Your task to perform on an android device: Look up the best rated book on Goodreads Image 0: 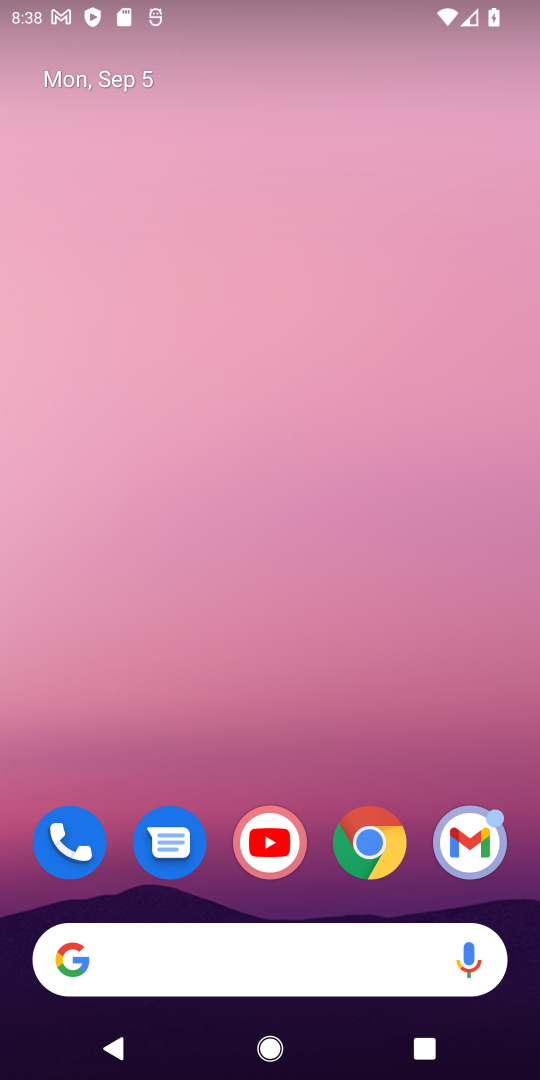
Step 0: drag from (443, 2) to (502, 18)
Your task to perform on an android device: Look up the best rated book on Goodreads Image 1: 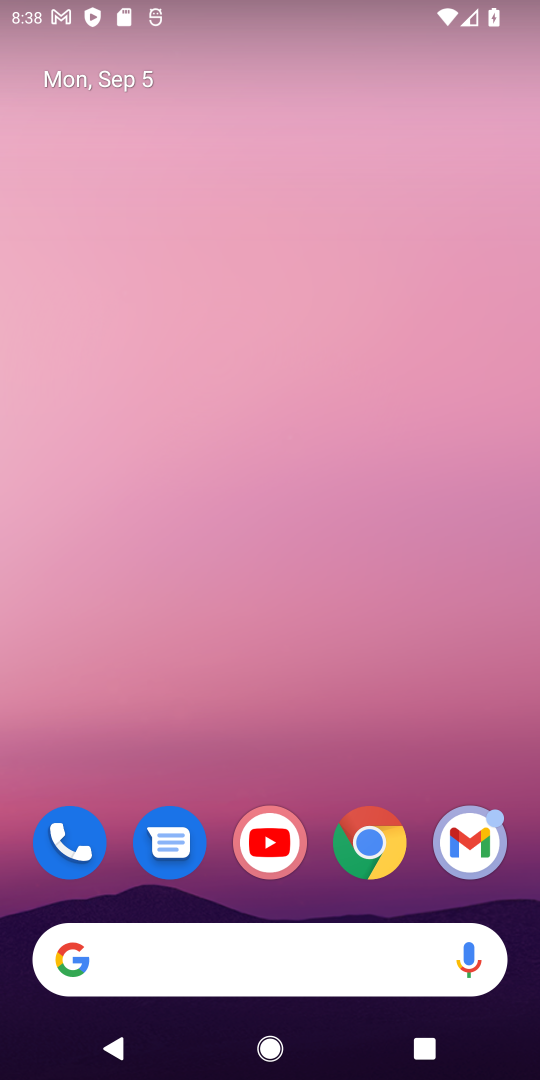
Step 1: drag from (415, 199) to (437, 0)
Your task to perform on an android device: Look up the best rated book on Goodreads Image 2: 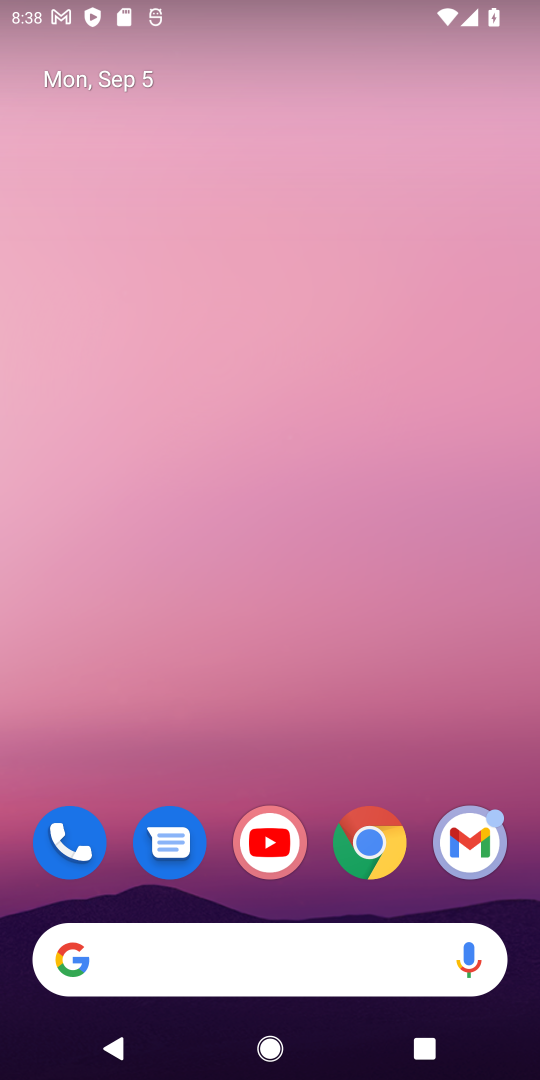
Step 2: drag from (325, 902) to (406, 116)
Your task to perform on an android device: Look up the best rated book on Goodreads Image 3: 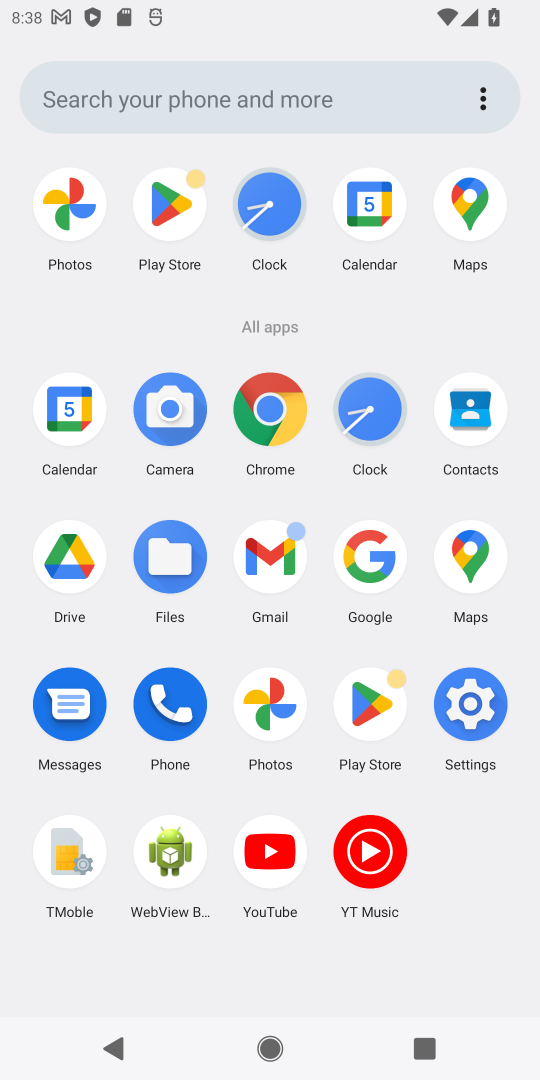
Step 3: click (278, 402)
Your task to perform on an android device: Look up the best rated book on Goodreads Image 4: 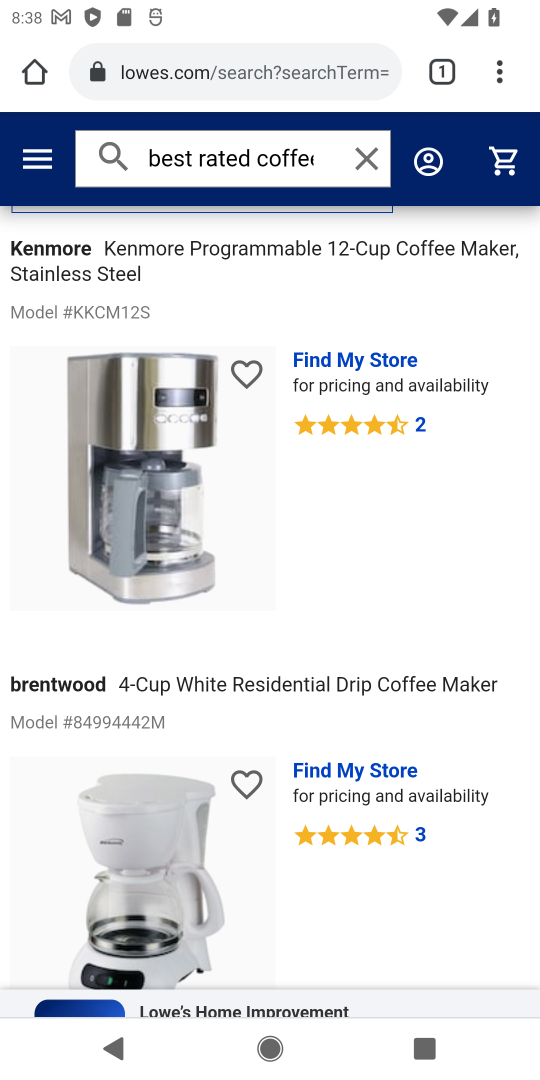
Step 4: click (243, 67)
Your task to perform on an android device: Look up the best rated book on Goodreads Image 5: 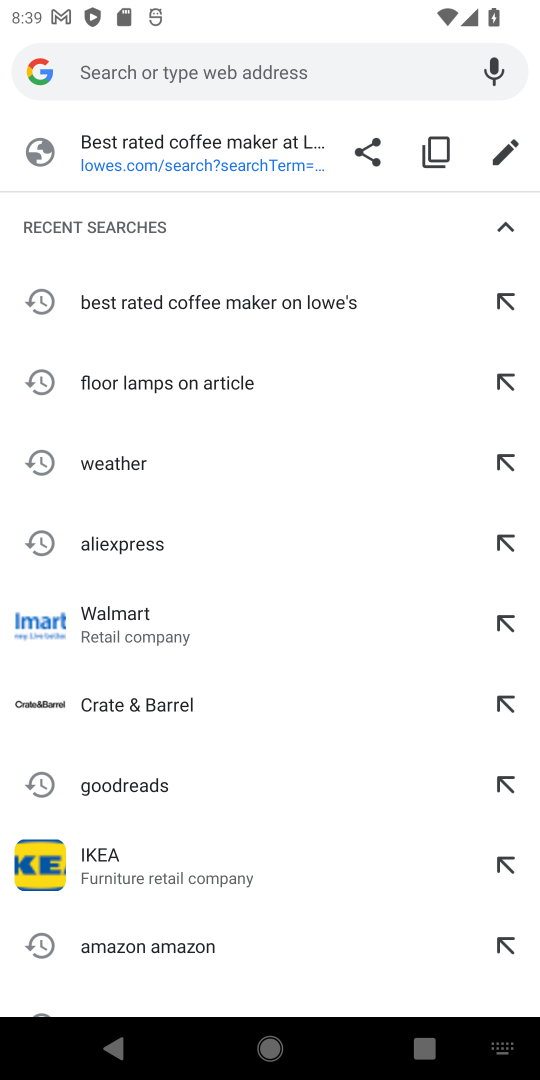
Step 5: type "goodreads"
Your task to perform on an android device: Look up the best rated book on Goodreads Image 6: 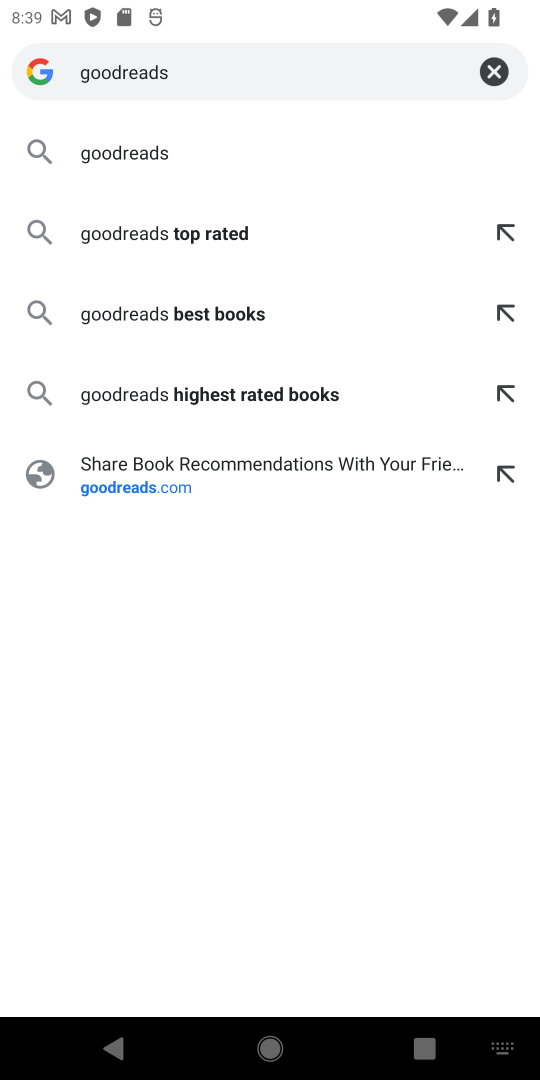
Step 6: press enter
Your task to perform on an android device: Look up the best rated book on Goodreads Image 7: 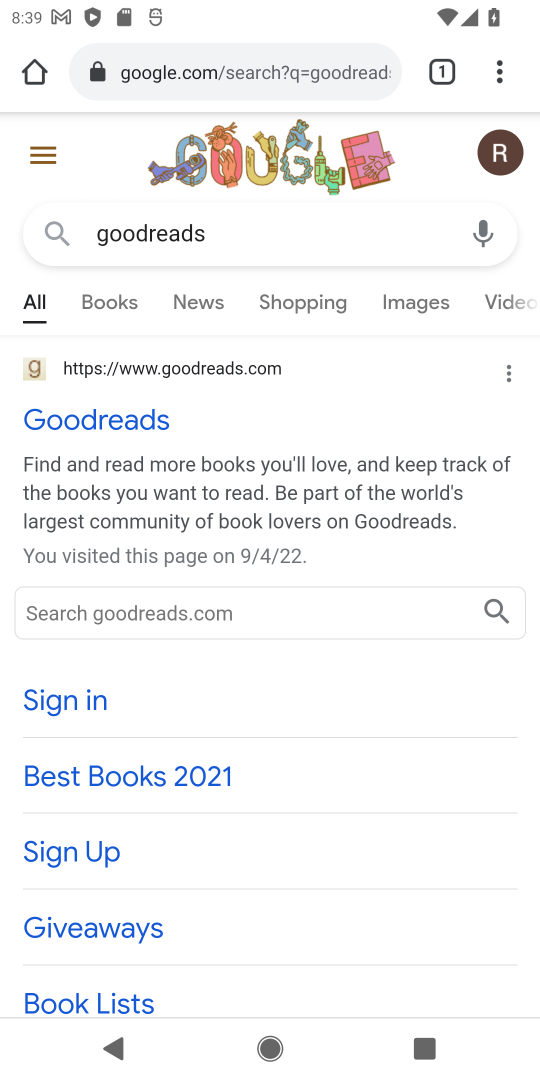
Step 7: click (78, 432)
Your task to perform on an android device: Look up the best rated book on Goodreads Image 8: 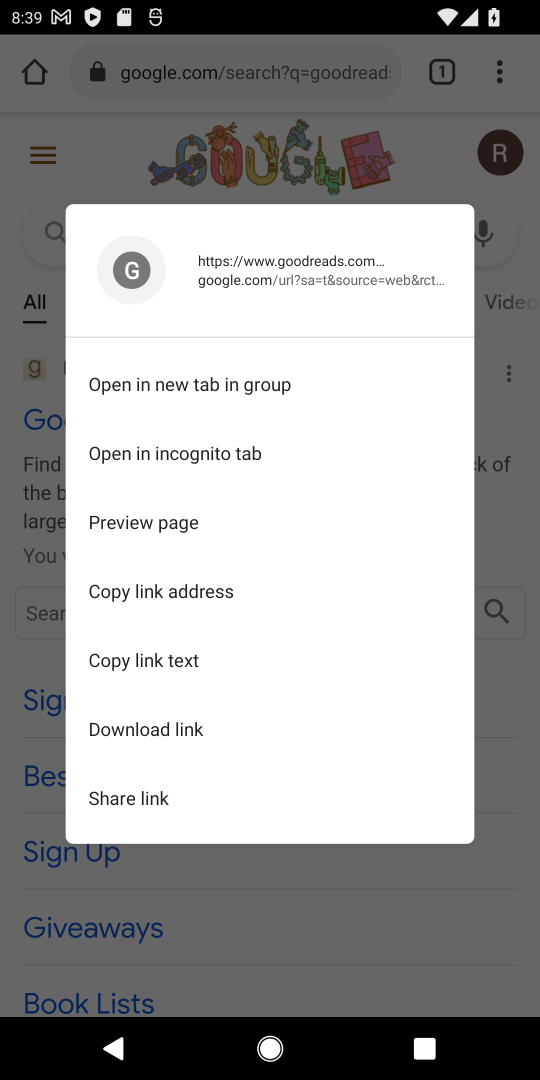
Step 8: click (55, 157)
Your task to perform on an android device: Look up the best rated book on Goodreads Image 9: 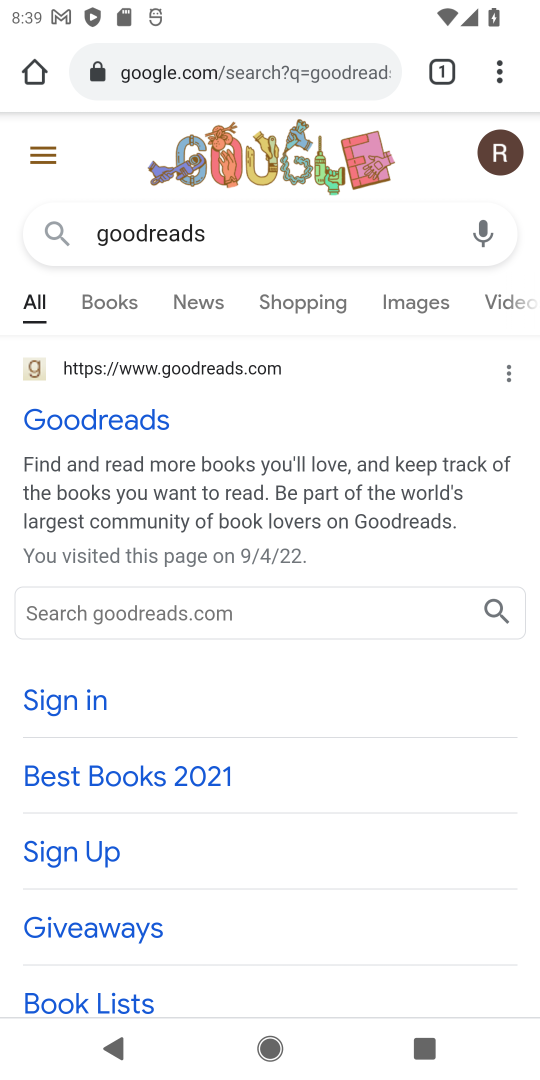
Step 9: click (148, 411)
Your task to perform on an android device: Look up the best rated book on Goodreads Image 10: 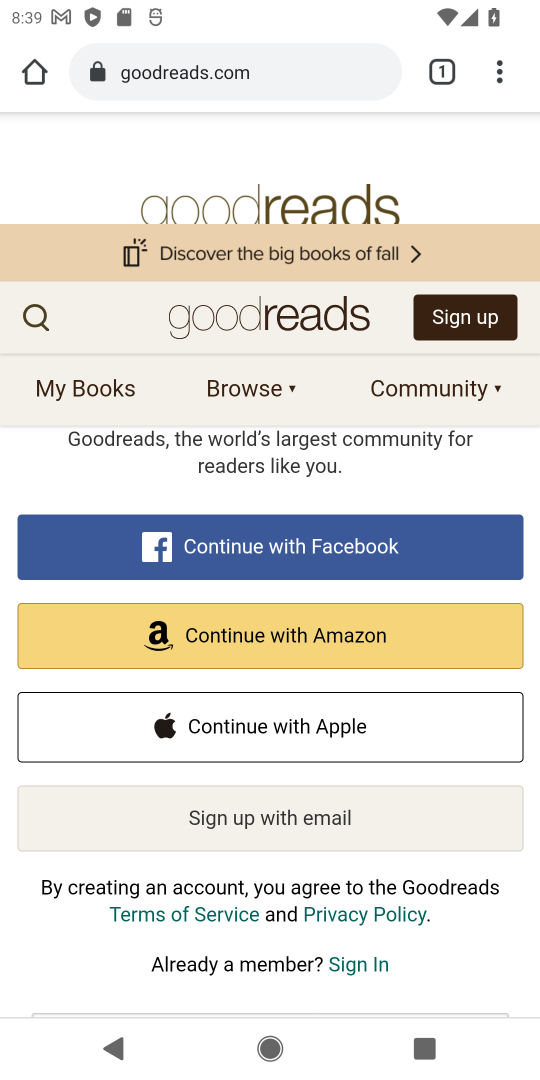
Step 10: click (282, 82)
Your task to perform on an android device: Look up the best rated book on Goodreads Image 11: 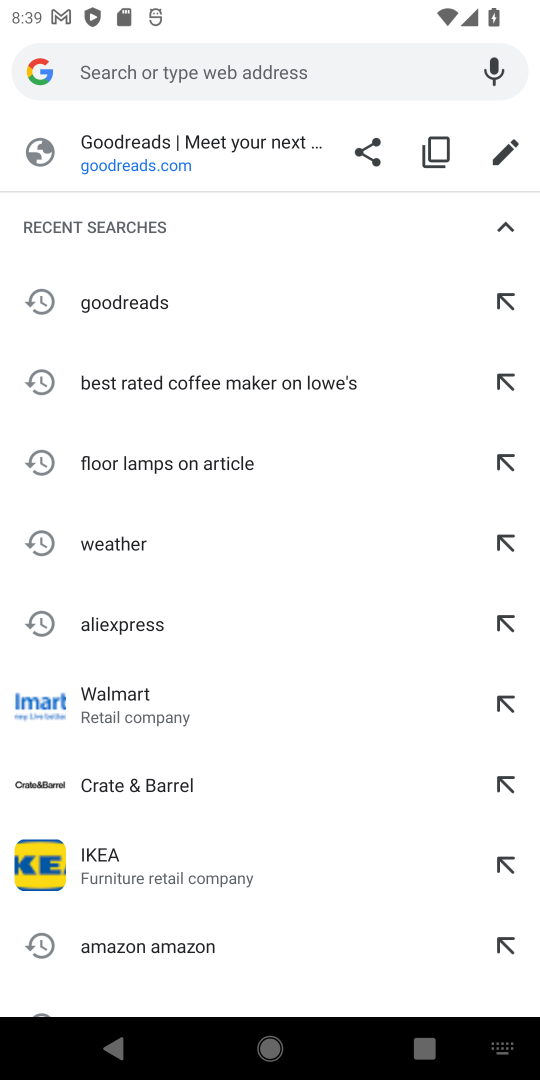
Step 11: press back button
Your task to perform on an android device: Look up the best rated book on Goodreads Image 12: 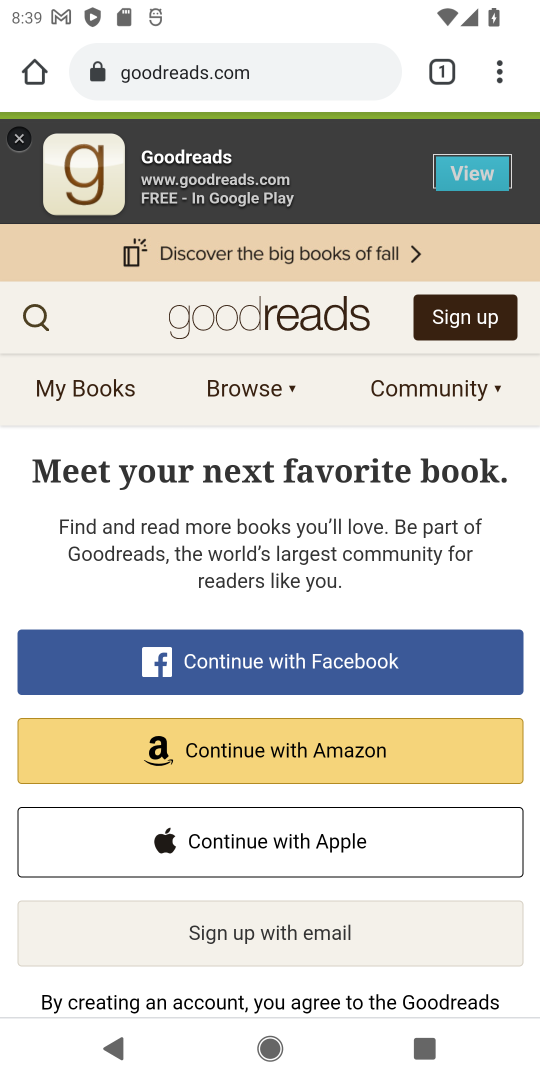
Step 12: click (40, 316)
Your task to perform on an android device: Look up the best rated book on Goodreads Image 13: 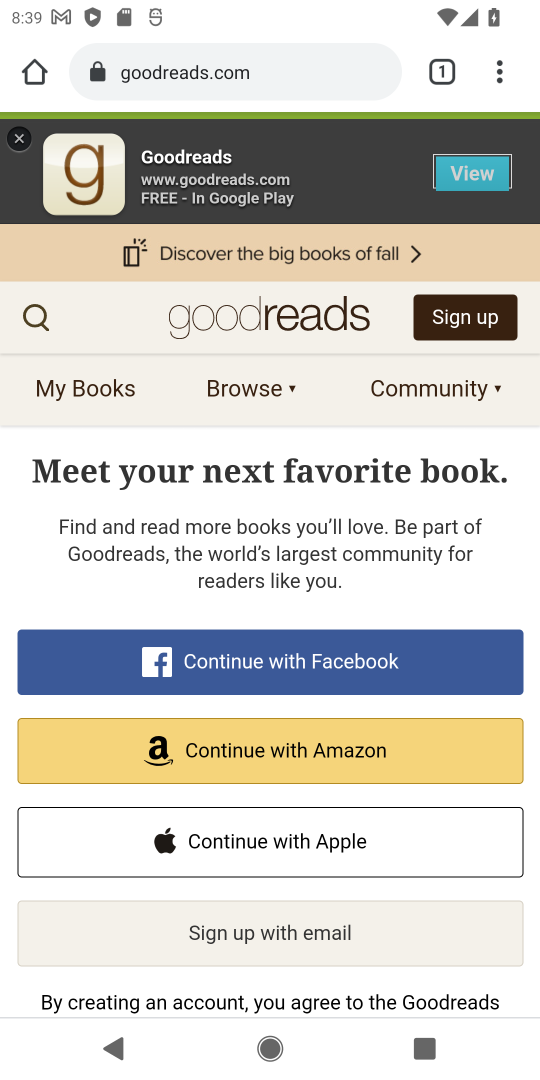
Step 13: click (48, 311)
Your task to perform on an android device: Look up the best rated book on Goodreads Image 14: 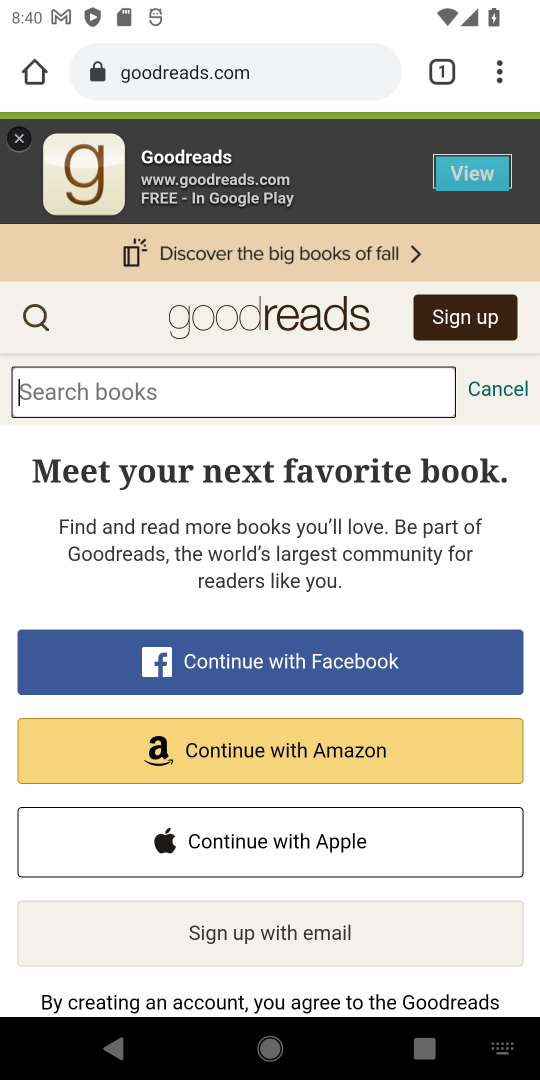
Step 14: type "best rated book"
Your task to perform on an android device: Look up the best rated book on Goodreads Image 15: 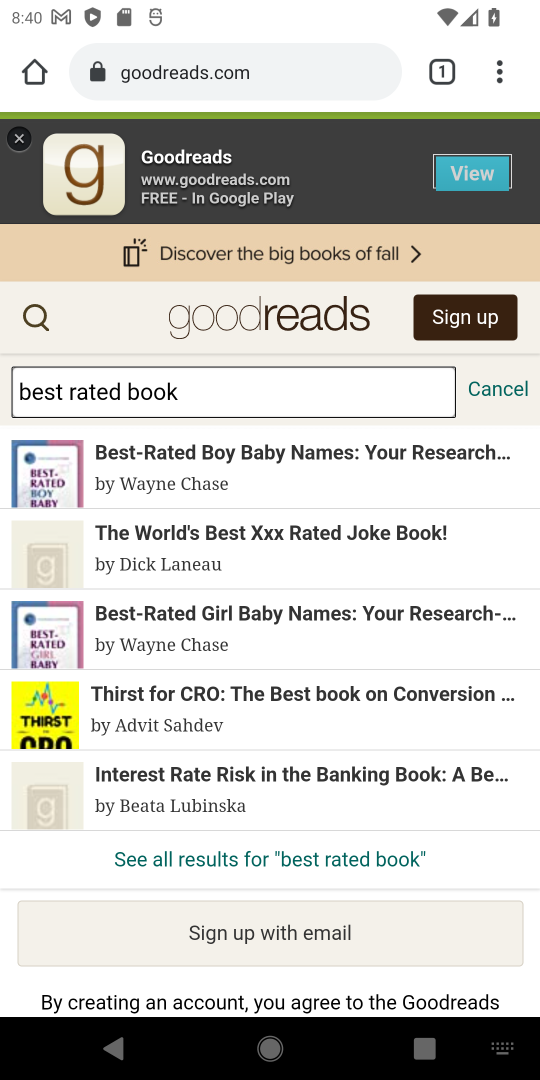
Step 15: click (191, 66)
Your task to perform on an android device: Look up the best rated book on Goodreads Image 16: 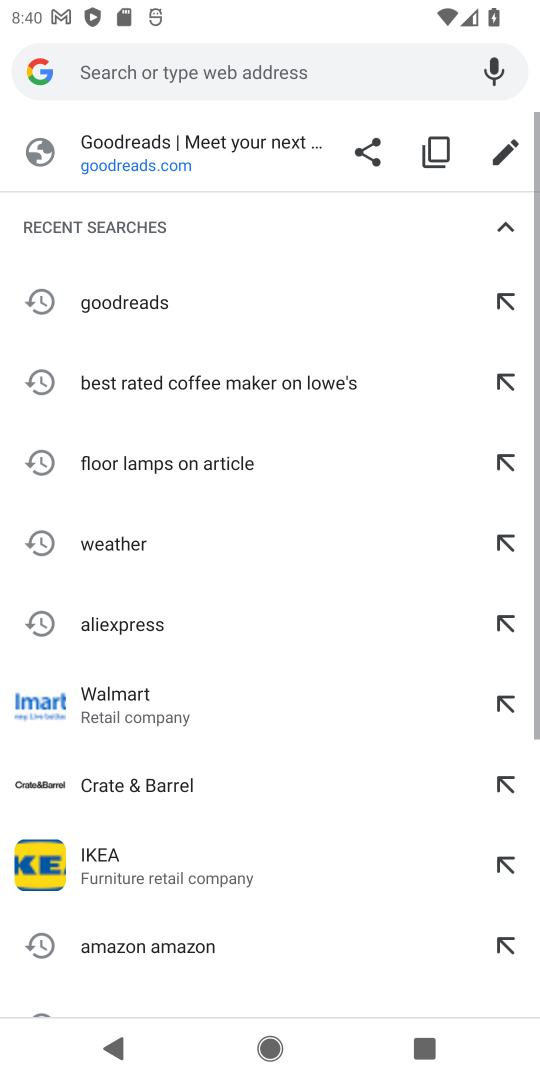
Step 16: click (190, 68)
Your task to perform on an android device: Look up the best rated book on Goodreads Image 17: 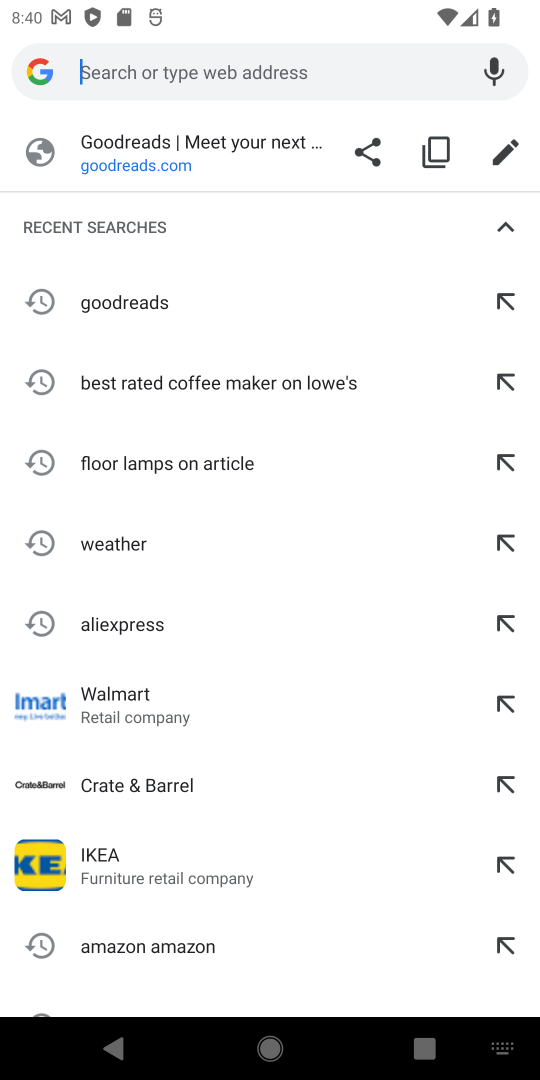
Step 17: type "best rated book on"
Your task to perform on an android device: Look up the best rated book on Goodreads Image 18: 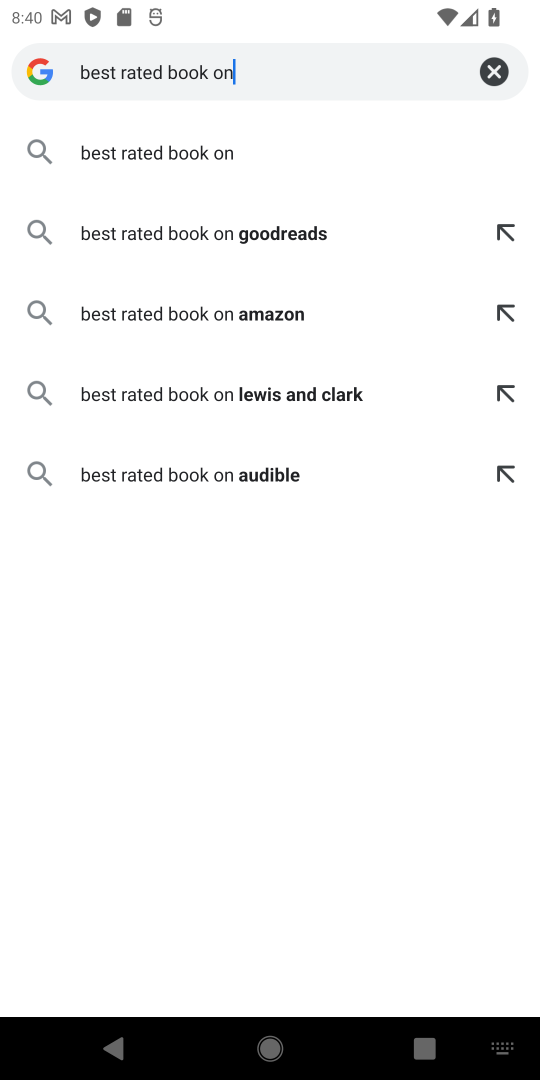
Step 18: type " Goodreads"
Your task to perform on an android device: Look up the best rated book on Goodreads Image 19: 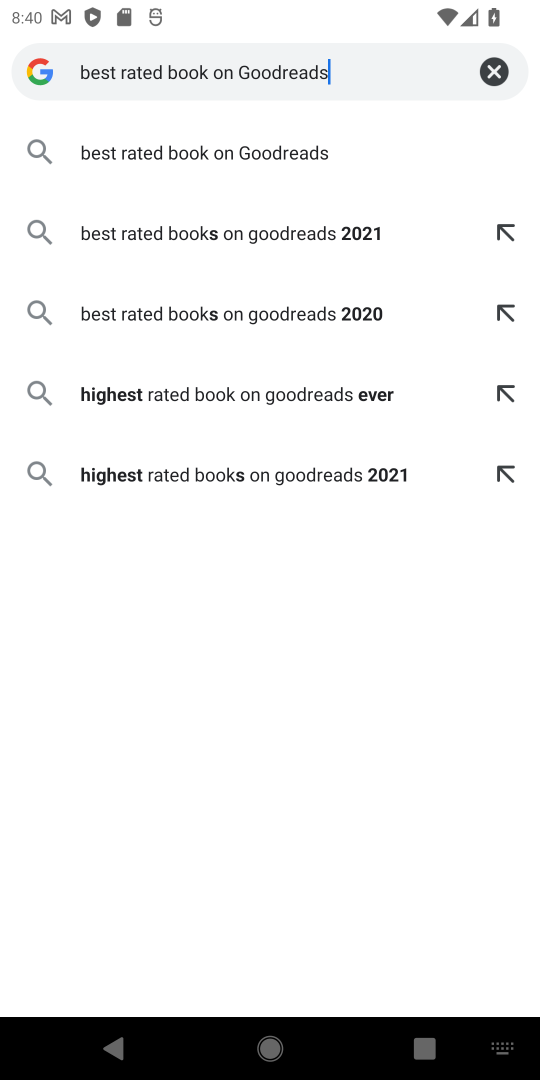
Step 19: press enter
Your task to perform on an android device: Look up the best rated book on Goodreads Image 20: 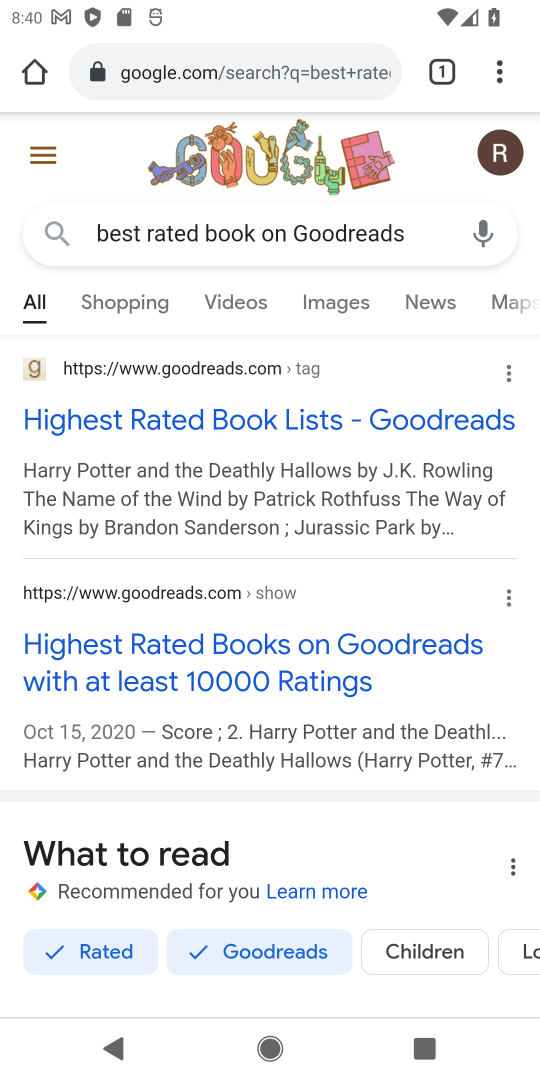
Step 20: click (224, 423)
Your task to perform on an android device: Look up the best rated book on Goodreads Image 21: 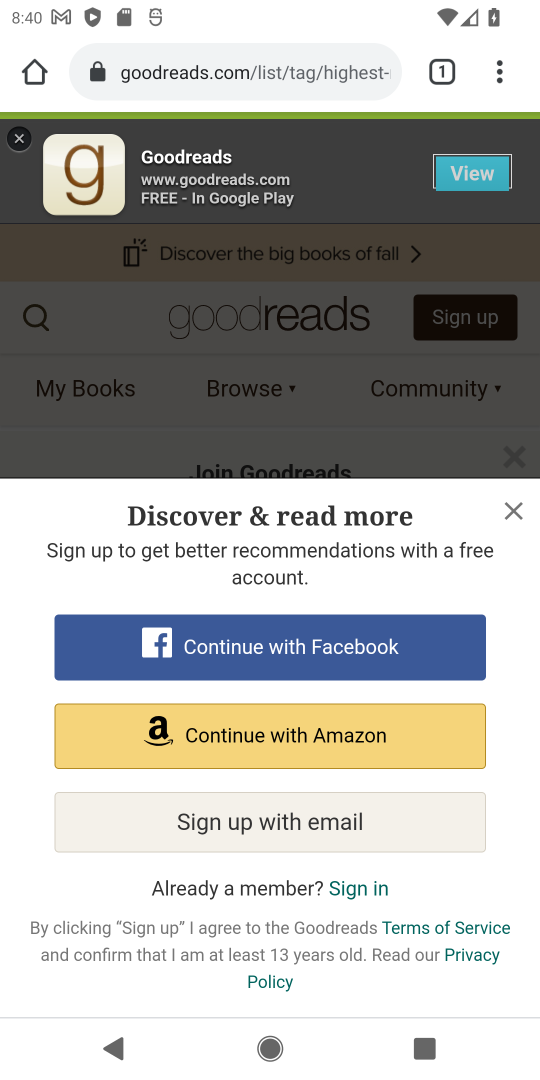
Step 21: drag from (353, 330) to (349, 281)
Your task to perform on an android device: Look up the best rated book on Goodreads Image 22: 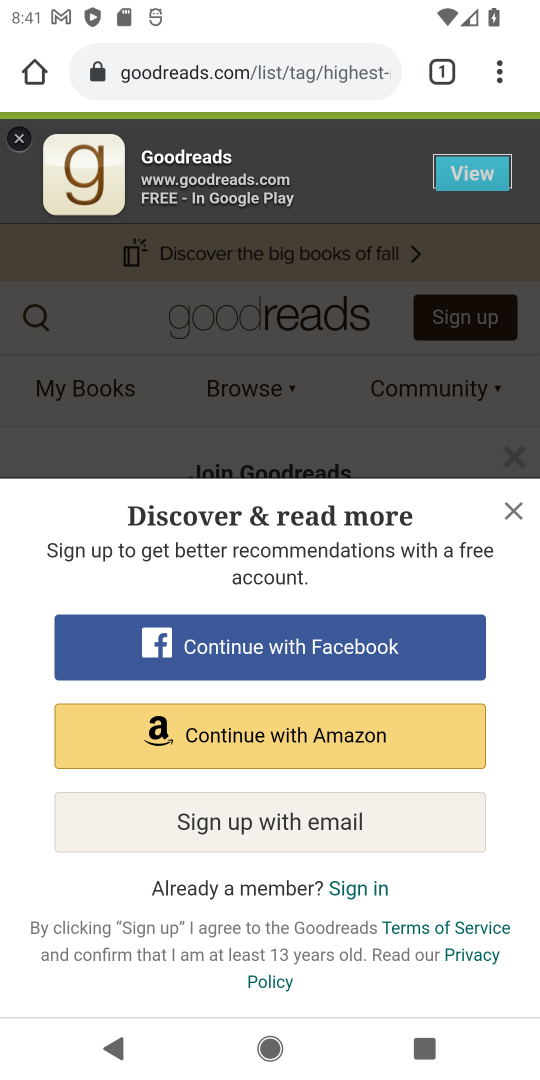
Step 22: click (506, 497)
Your task to perform on an android device: Look up the best rated book on Goodreads Image 23: 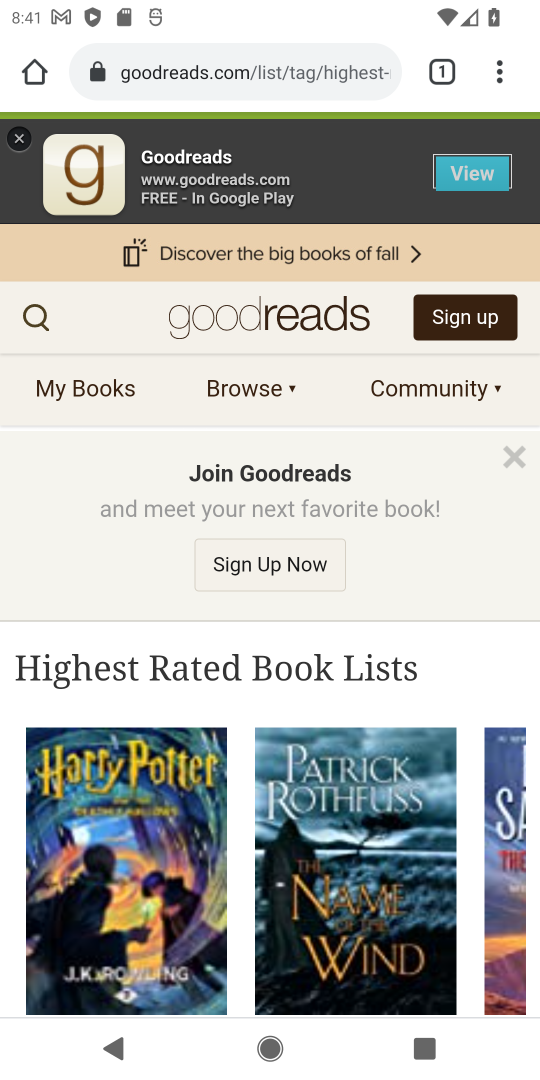
Step 23: task complete